Your task to perform on an android device: Go to eBay Image 0: 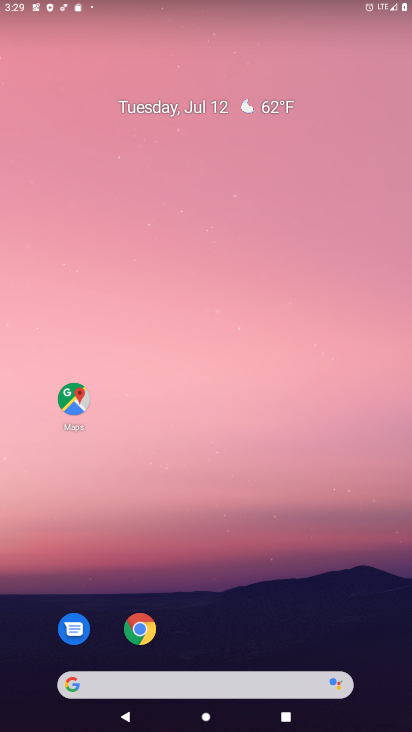
Step 0: drag from (202, 648) to (159, 93)
Your task to perform on an android device: Go to eBay Image 1: 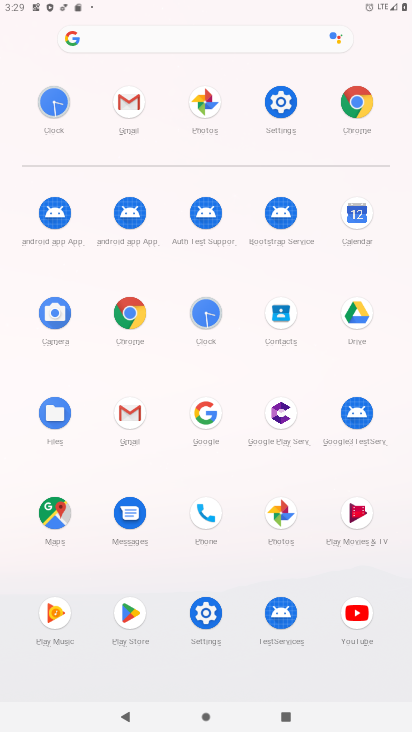
Step 1: click (133, 307)
Your task to perform on an android device: Go to eBay Image 2: 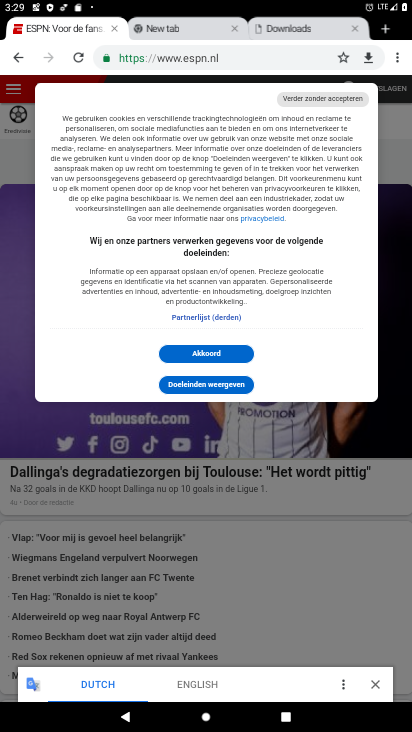
Step 2: click (209, 350)
Your task to perform on an android device: Go to eBay Image 3: 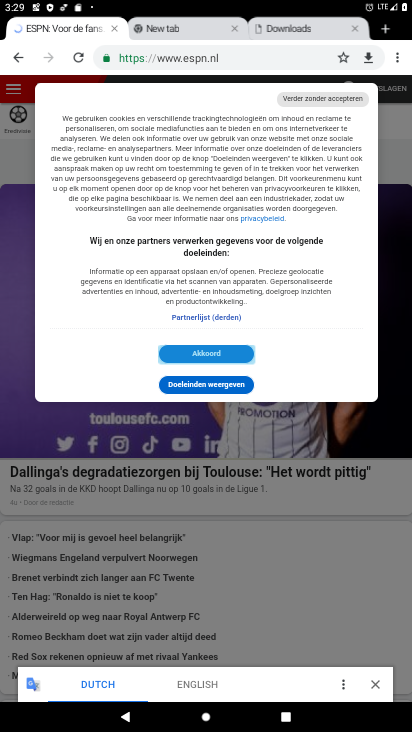
Step 3: click (177, 26)
Your task to perform on an android device: Go to eBay Image 4: 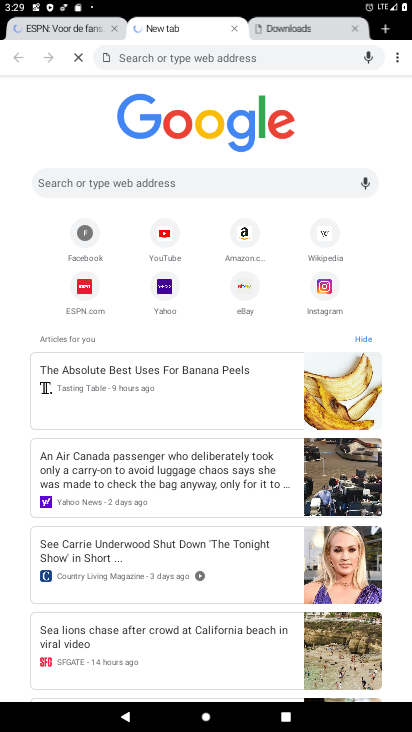
Step 4: click (175, 26)
Your task to perform on an android device: Go to eBay Image 5: 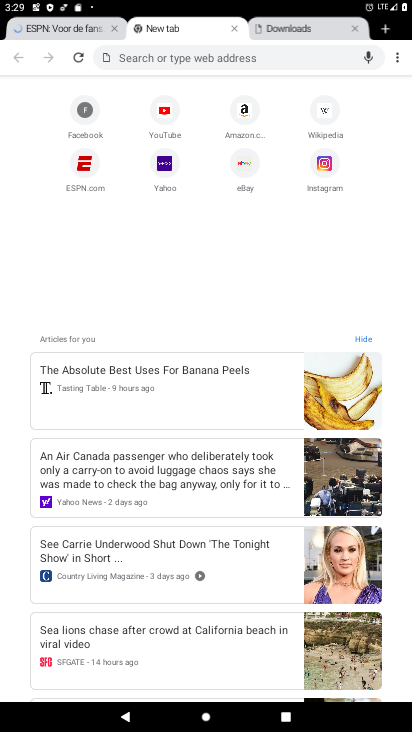
Step 5: click (242, 155)
Your task to perform on an android device: Go to eBay Image 6: 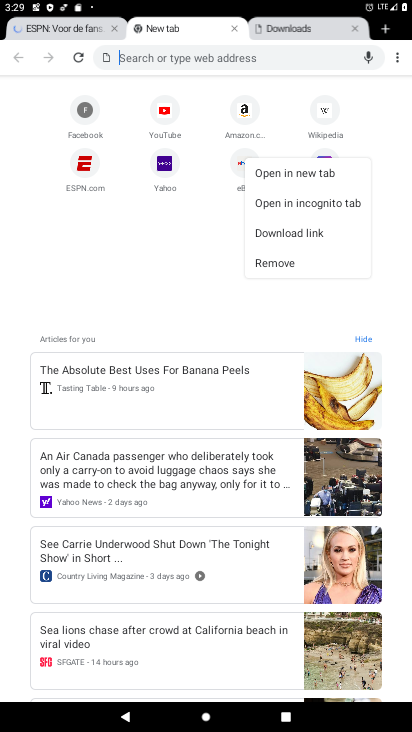
Step 6: click (324, 147)
Your task to perform on an android device: Go to eBay Image 7: 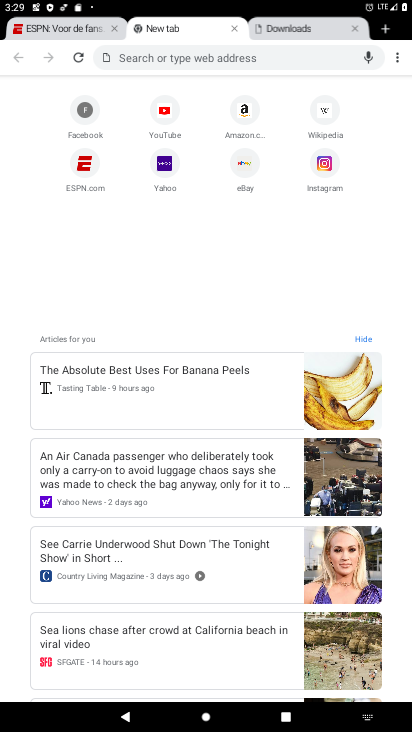
Step 7: click (238, 171)
Your task to perform on an android device: Go to eBay Image 8: 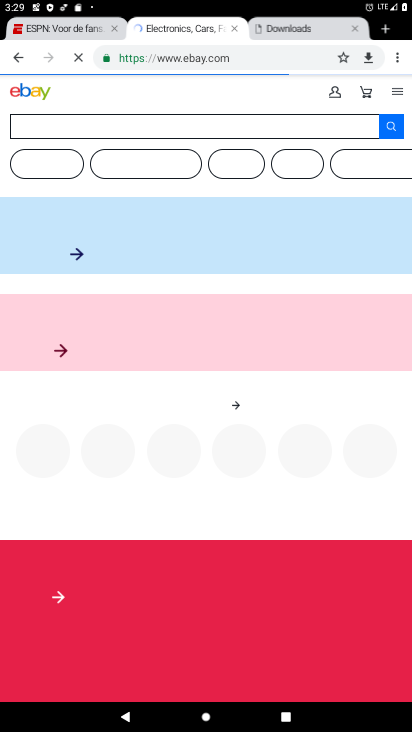
Step 8: task complete